Your task to perform on an android device: Go to network settings Image 0: 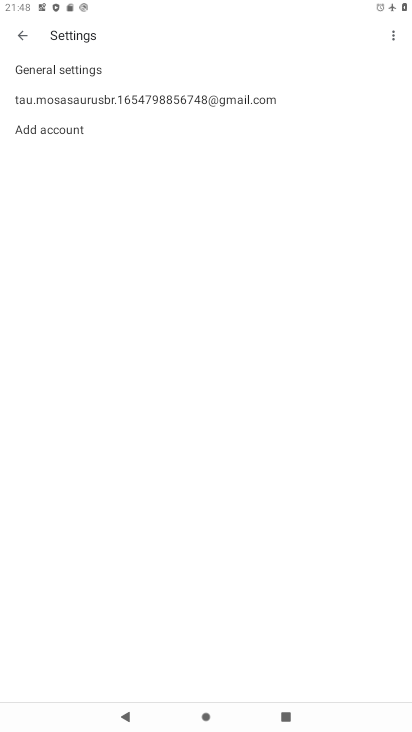
Step 0: press home button
Your task to perform on an android device: Go to network settings Image 1: 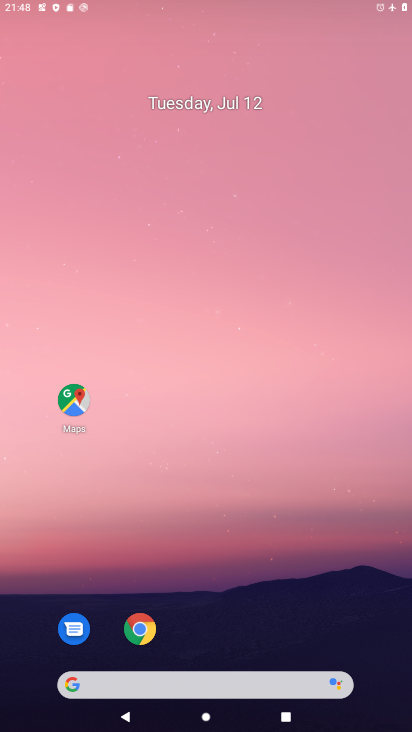
Step 1: drag from (230, 583) to (238, 152)
Your task to perform on an android device: Go to network settings Image 2: 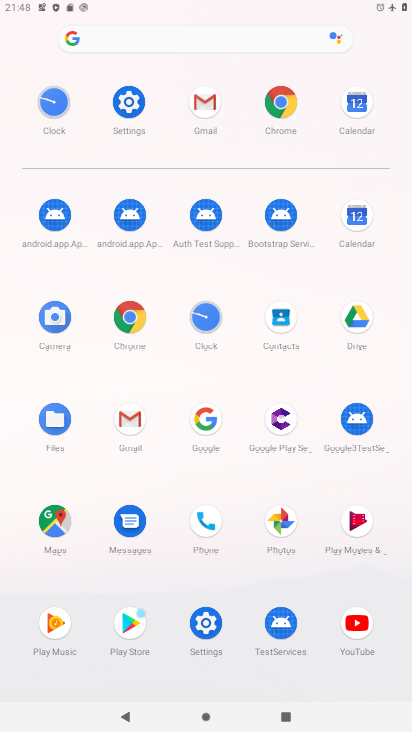
Step 2: click (140, 103)
Your task to perform on an android device: Go to network settings Image 3: 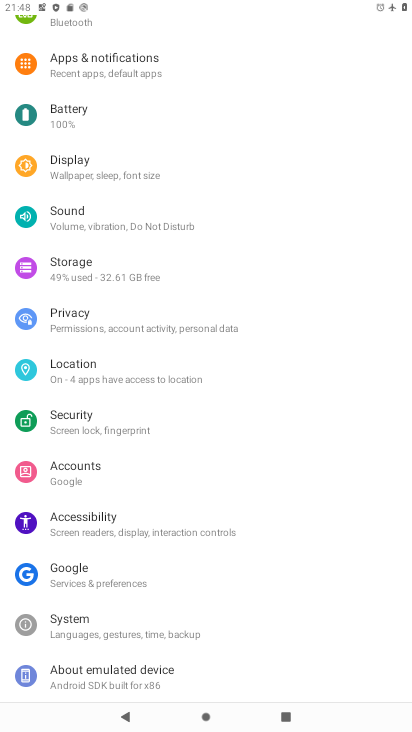
Step 3: drag from (140, 94) to (149, 629)
Your task to perform on an android device: Go to network settings Image 4: 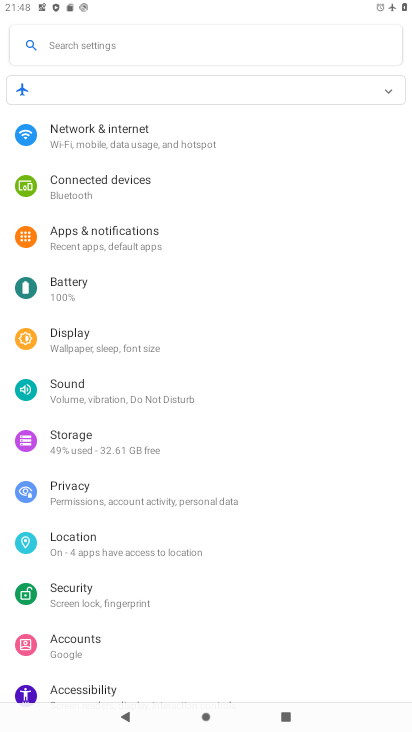
Step 4: click (102, 142)
Your task to perform on an android device: Go to network settings Image 5: 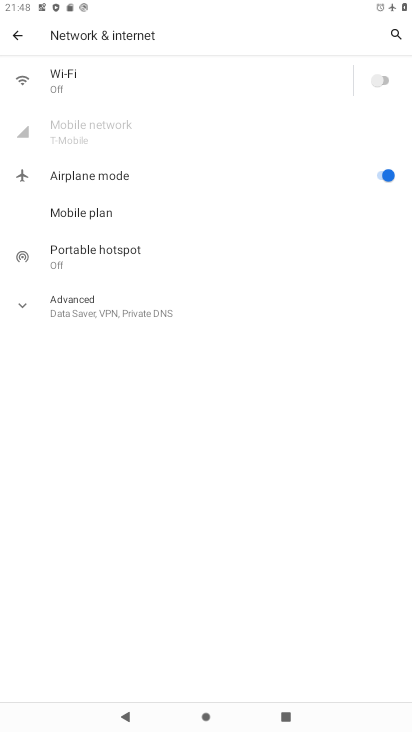
Step 5: task complete